Your task to perform on an android device: Go to sound settings Image 0: 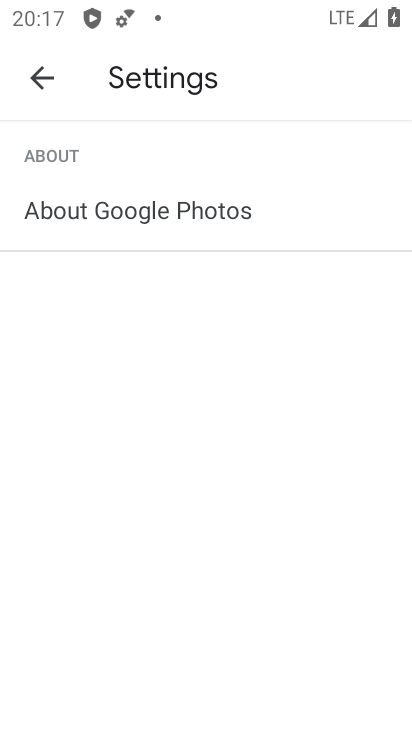
Step 0: click (208, 513)
Your task to perform on an android device: Go to sound settings Image 1: 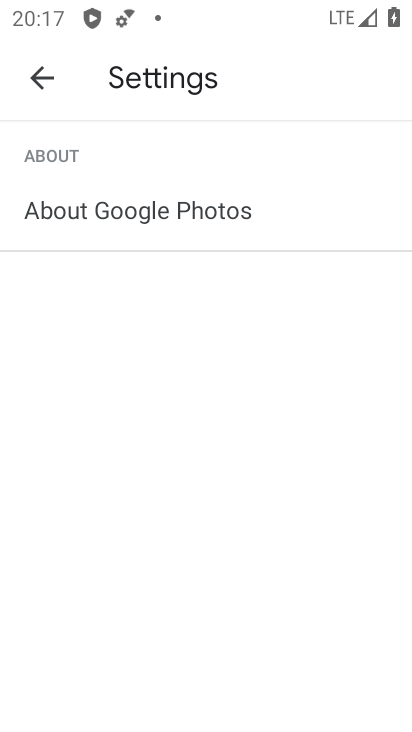
Step 1: press home button
Your task to perform on an android device: Go to sound settings Image 2: 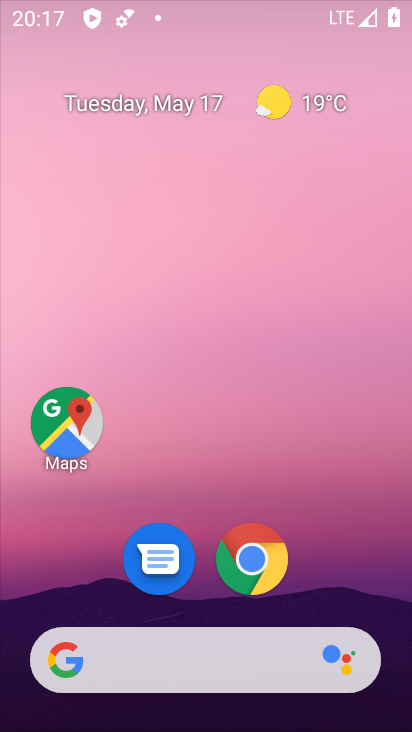
Step 2: drag from (229, 594) to (222, 6)
Your task to perform on an android device: Go to sound settings Image 3: 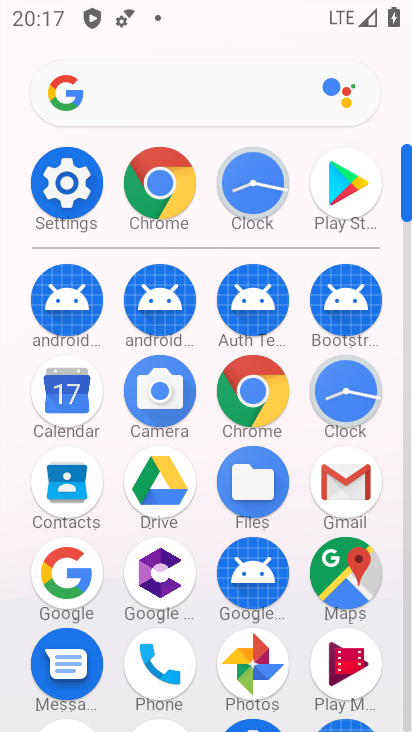
Step 3: click (71, 198)
Your task to perform on an android device: Go to sound settings Image 4: 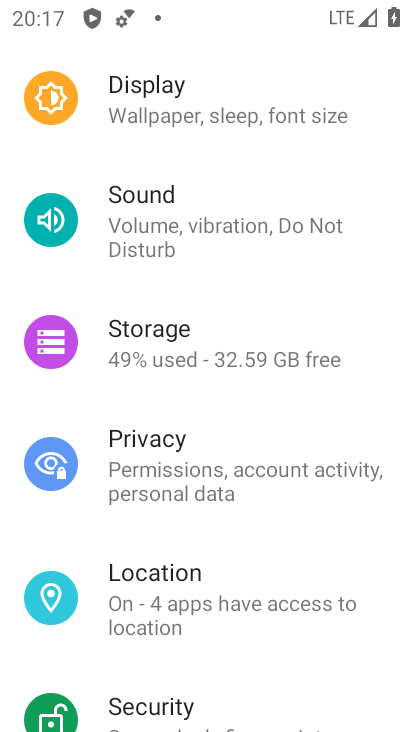
Step 4: click (157, 239)
Your task to perform on an android device: Go to sound settings Image 5: 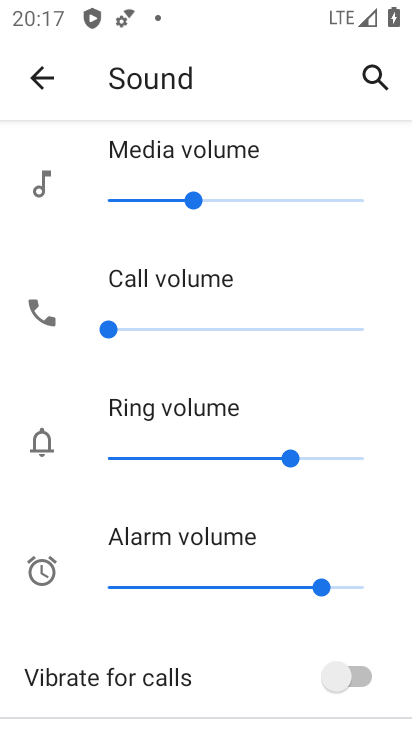
Step 5: task complete